Your task to perform on an android device: delete browsing data in the chrome app Image 0: 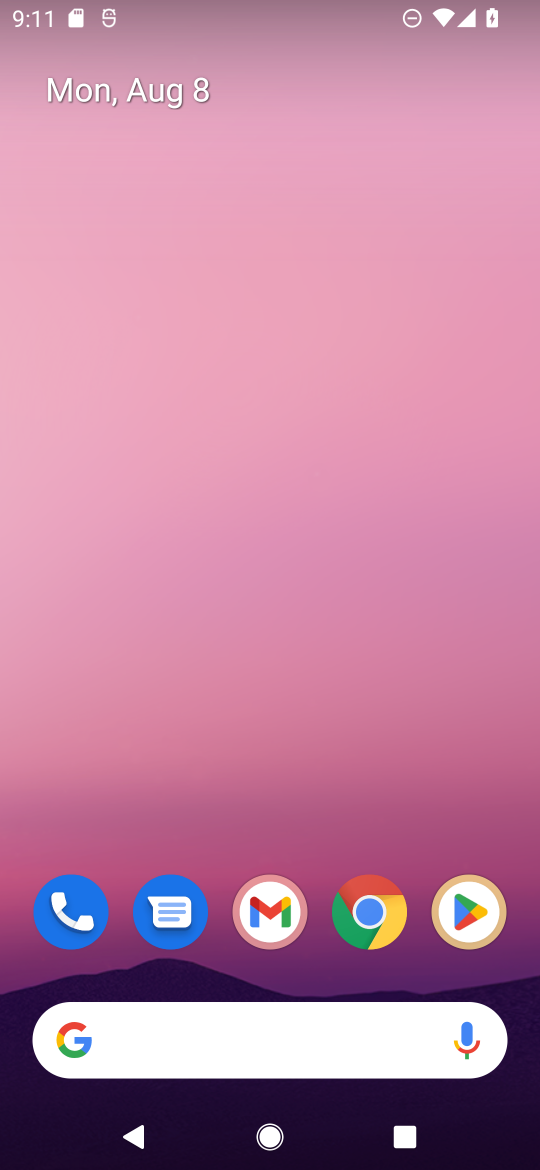
Step 0: drag from (528, 980) to (283, 192)
Your task to perform on an android device: delete browsing data in the chrome app Image 1: 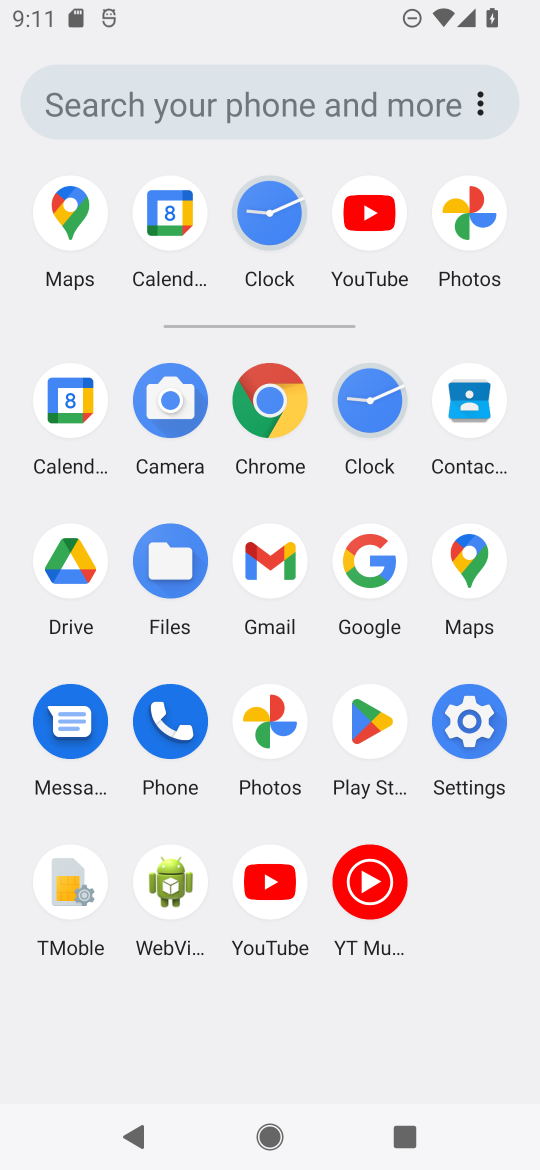
Step 1: click (258, 414)
Your task to perform on an android device: delete browsing data in the chrome app Image 2: 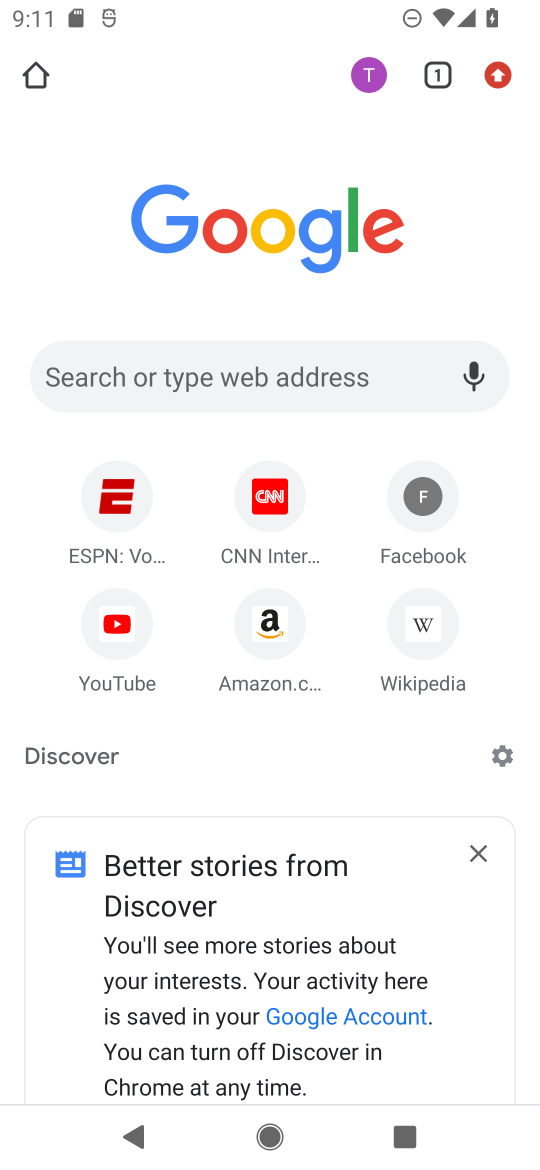
Step 2: click (489, 72)
Your task to perform on an android device: delete browsing data in the chrome app Image 3: 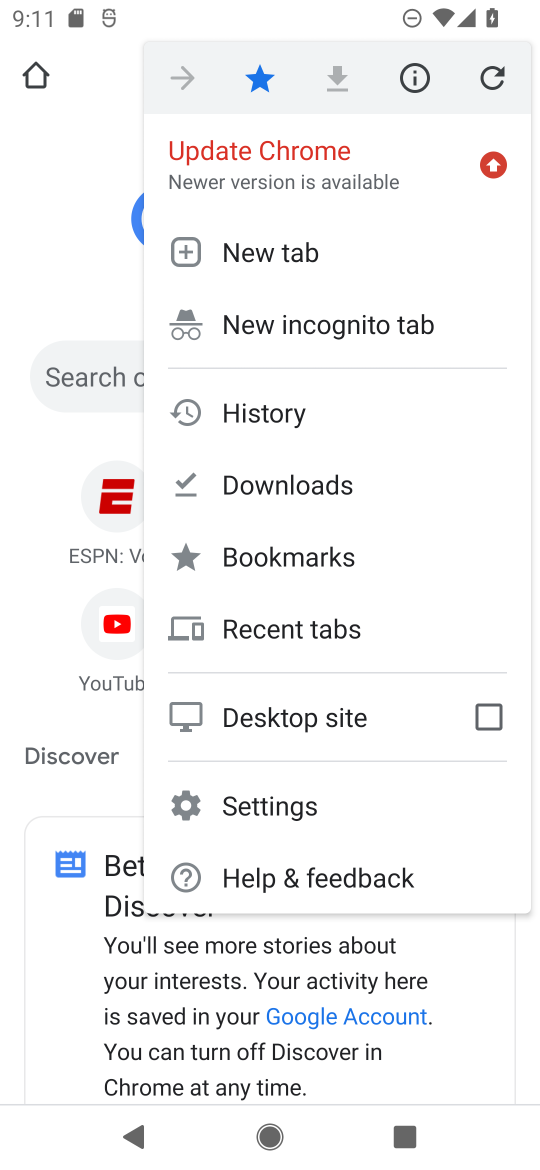
Step 3: click (367, 425)
Your task to perform on an android device: delete browsing data in the chrome app Image 4: 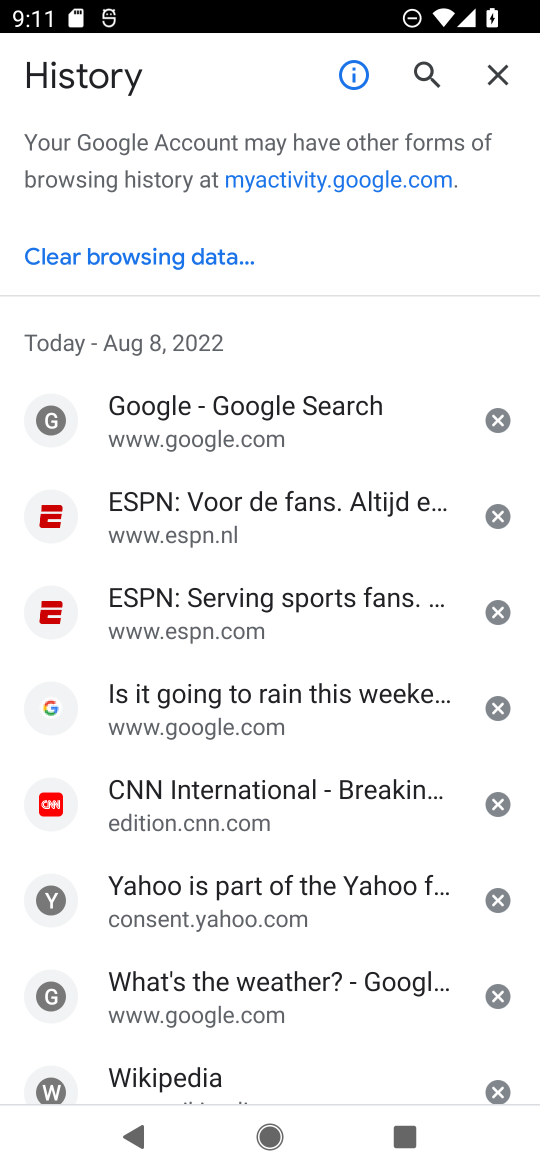
Step 4: click (160, 247)
Your task to perform on an android device: delete browsing data in the chrome app Image 5: 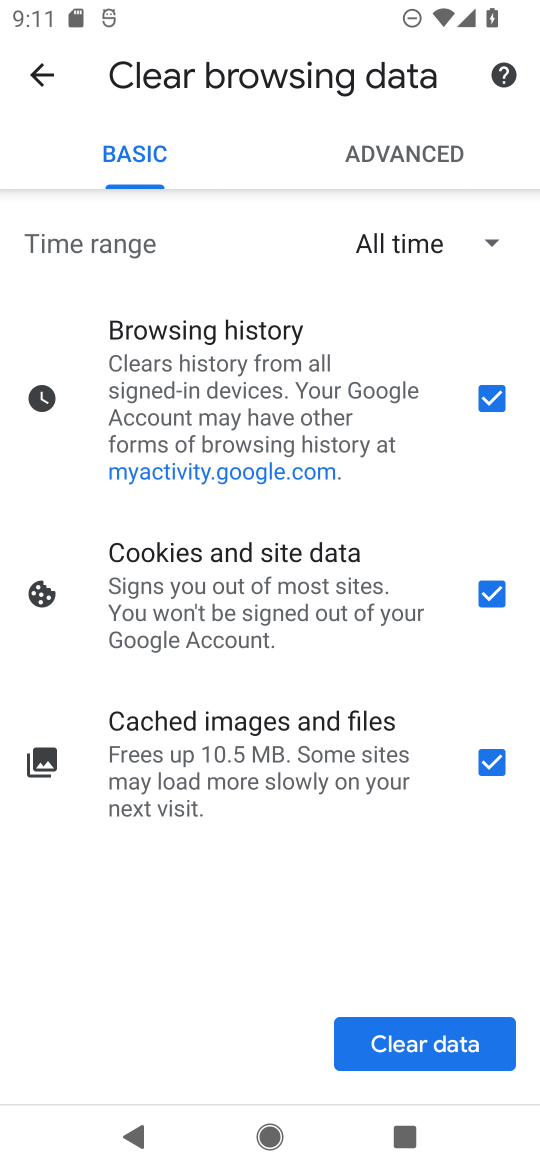
Step 5: click (431, 1053)
Your task to perform on an android device: delete browsing data in the chrome app Image 6: 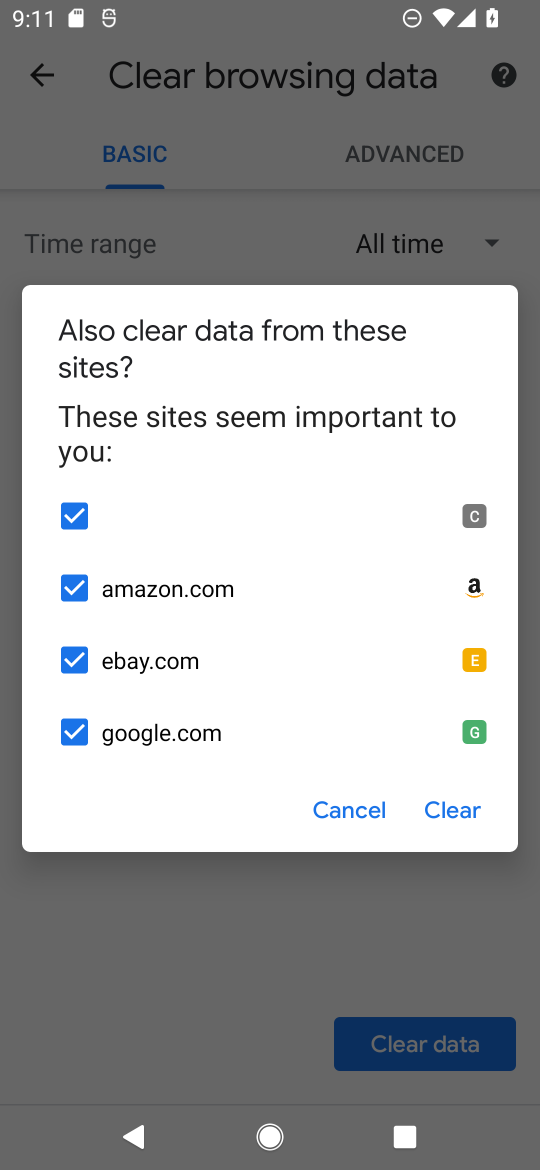
Step 6: click (448, 790)
Your task to perform on an android device: delete browsing data in the chrome app Image 7: 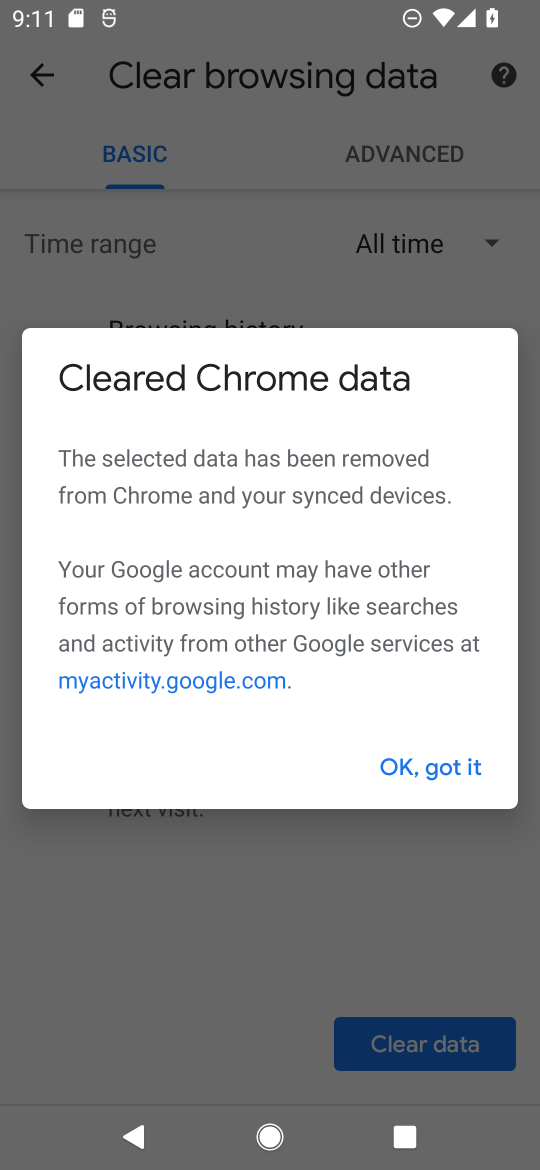
Step 7: click (448, 790)
Your task to perform on an android device: delete browsing data in the chrome app Image 8: 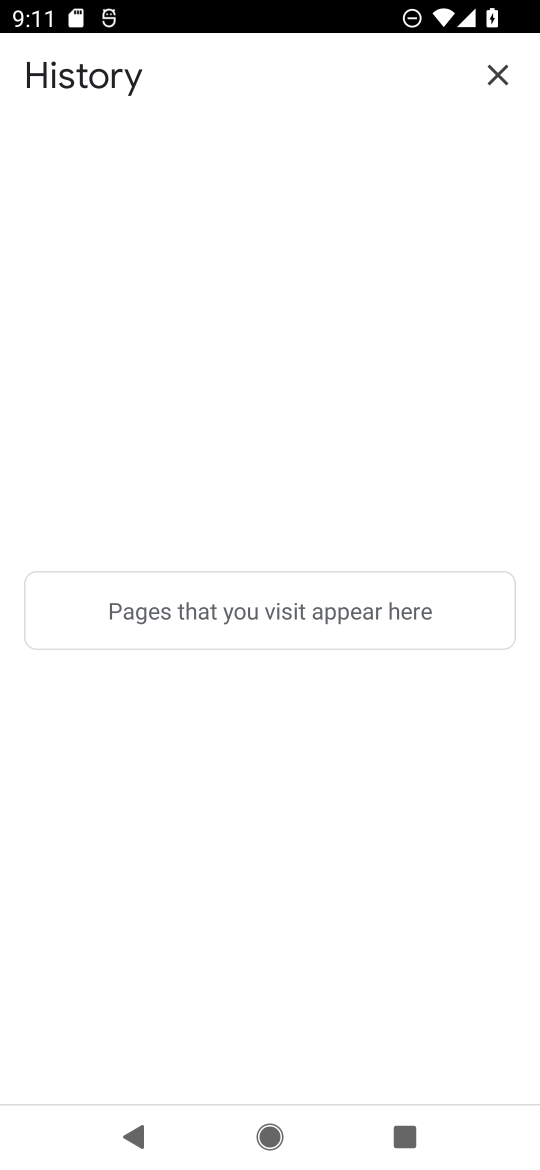
Step 8: task complete